Your task to perform on an android device: find photos in the google photos app Image 0: 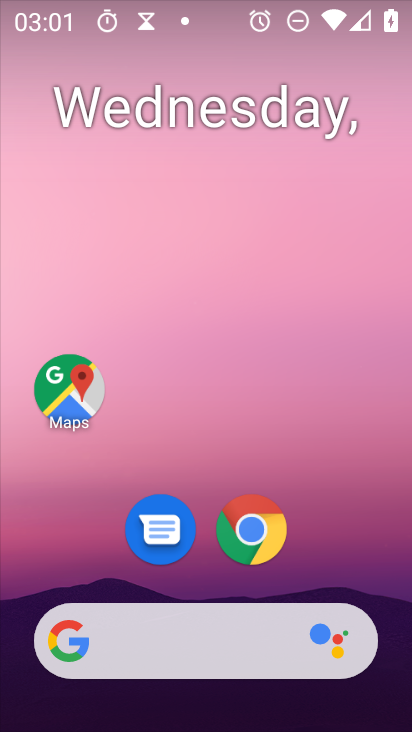
Step 0: drag from (289, 647) to (275, 38)
Your task to perform on an android device: find photos in the google photos app Image 1: 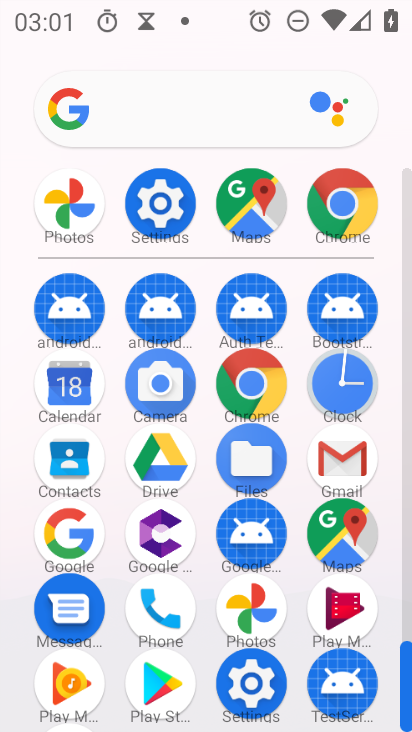
Step 1: click (259, 596)
Your task to perform on an android device: find photos in the google photos app Image 2: 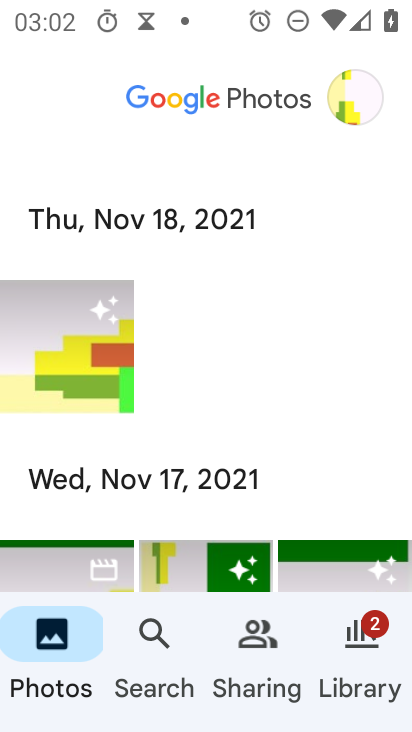
Step 2: task complete